Your task to perform on an android device: Open Youtube and go to "Your channel" Image 0: 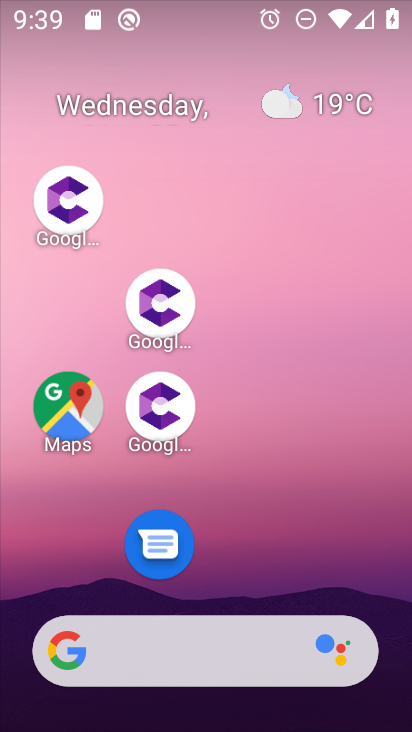
Step 0: drag from (272, 497) to (296, 60)
Your task to perform on an android device: Open Youtube and go to "Your channel" Image 1: 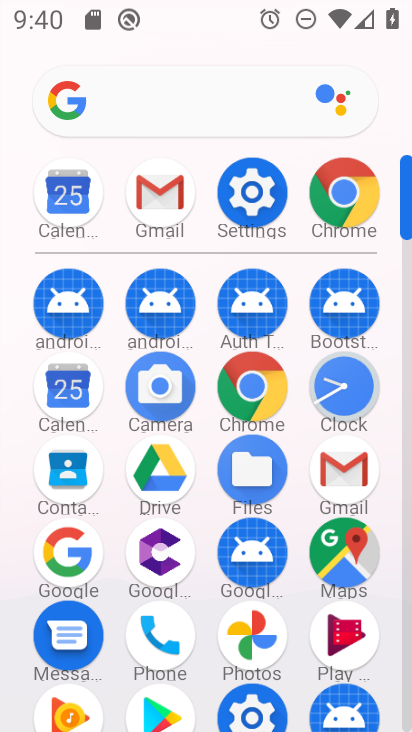
Step 1: drag from (116, 635) to (381, 41)
Your task to perform on an android device: Open Youtube and go to "Your channel" Image 2: 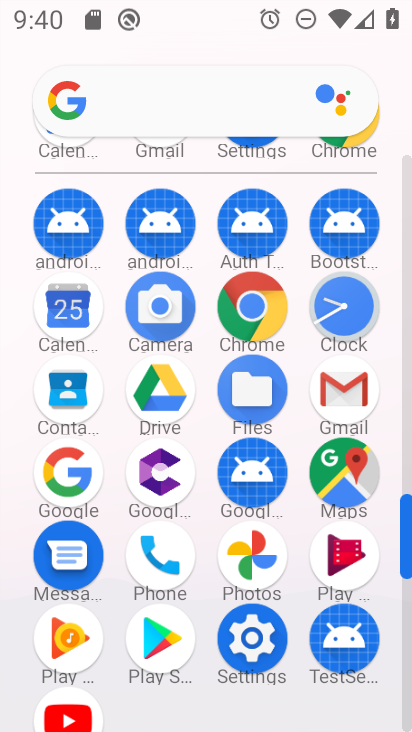
Step 2: drag from (110, 223) to (115, 121)
Your task to perform on an android device: Open Youtube and go to "Your channel" Image 3: 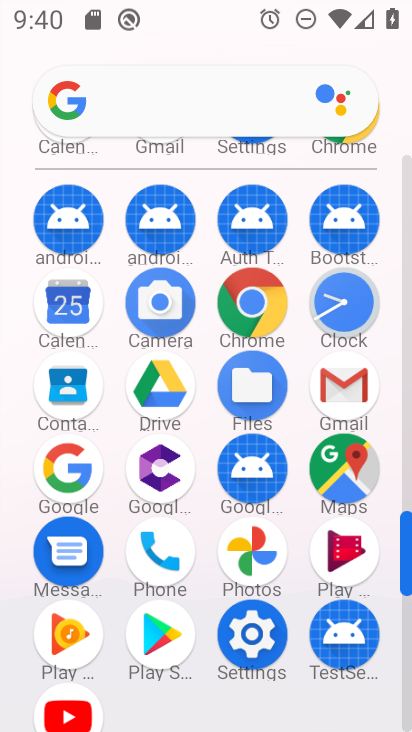
Step 3: click (67, 703)
Your task to perform on an android device: Open Youtube and go to "Your channel" Image 4: 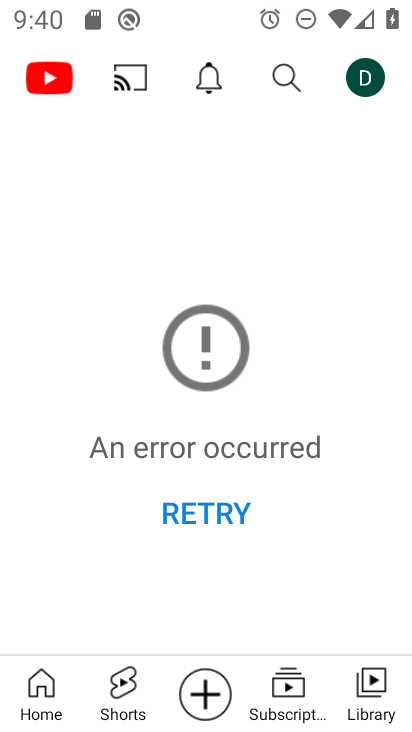
Step 4: click (361, 79)
Your task to perform on an android device: Open Youtube and go to "Your channel" Image 5: 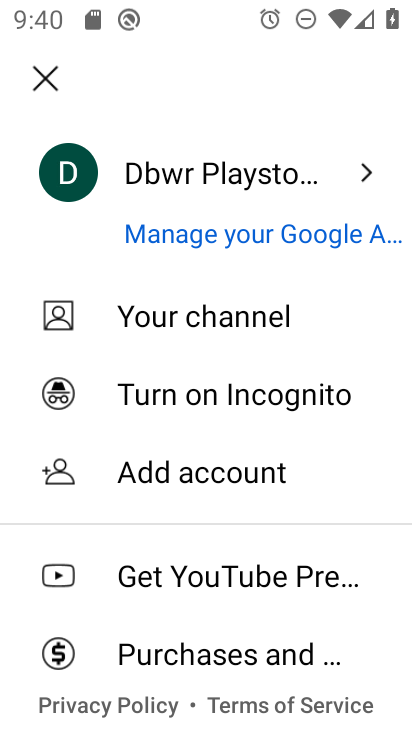
Step 5: click (157, 317)
Your task to perform on an android device: Open Youtube and go to "Your channel" Image 6: 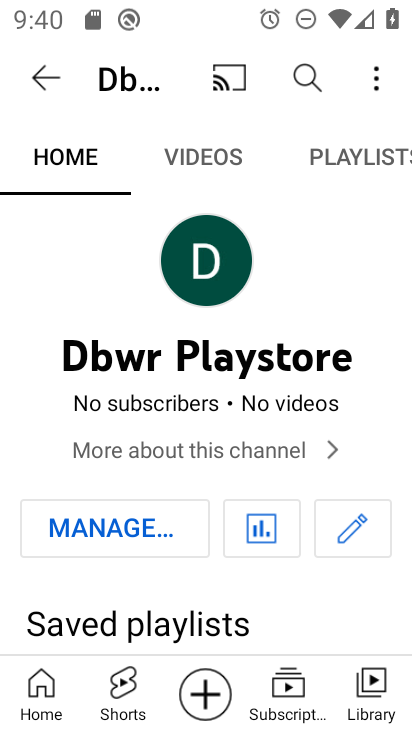
Step 6: task complete